Your task to perform on an android device: Open the calendar and show me this week's events? Image 0: 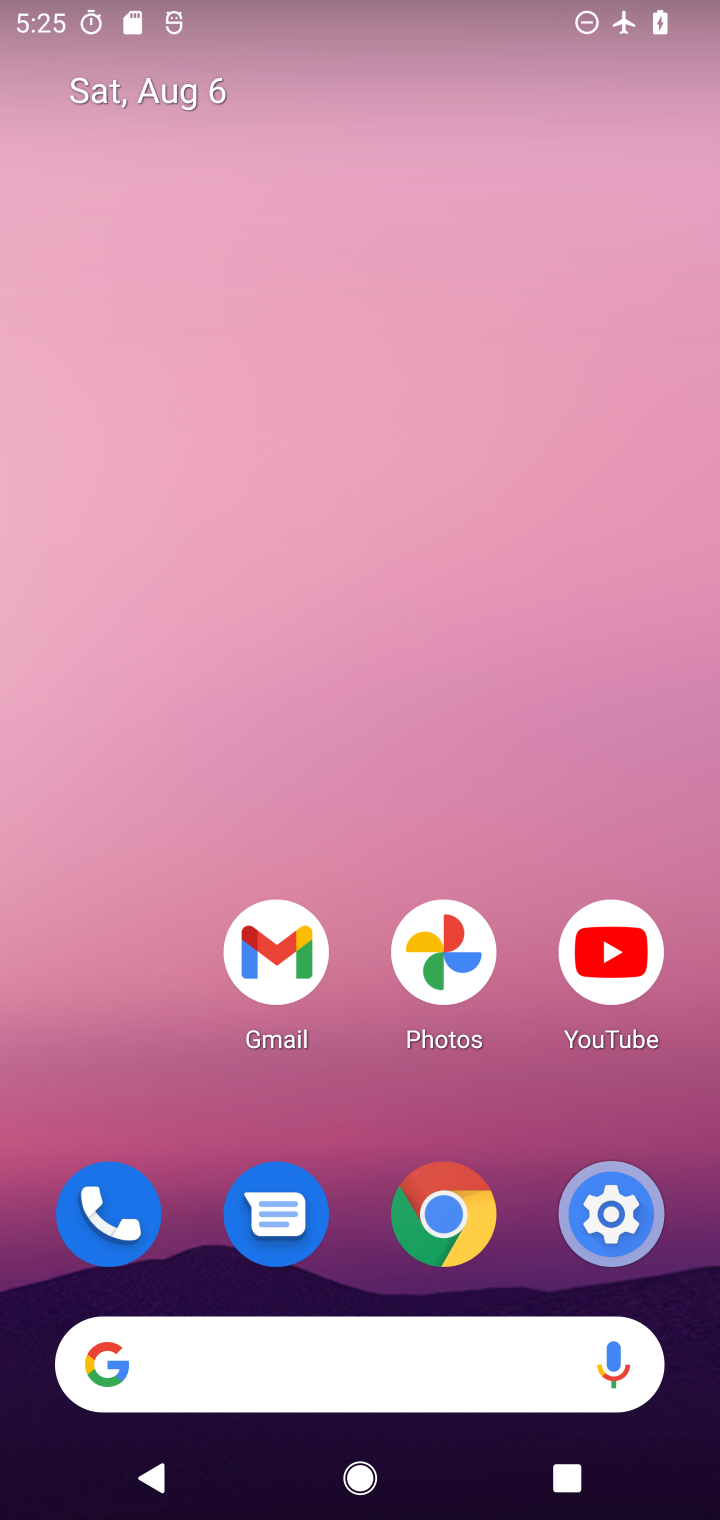
Step 0: drag from (344, 519) to (355, 155)
Your task to perform on an android device: Open the calendar and show me this week's events? Image 1: 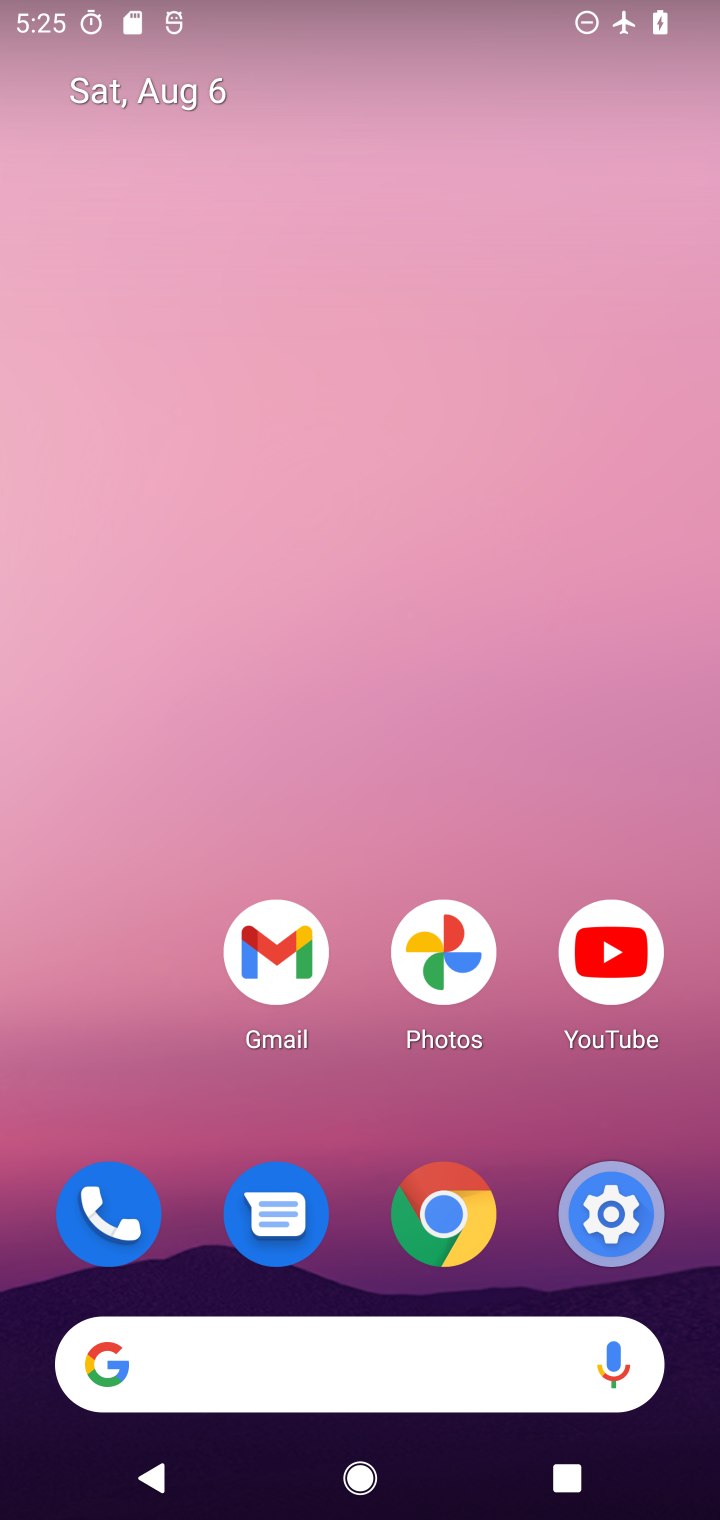
Step 1: drag from (340, 1225) to (304, 5)
Your task to perform on an android device: Open the calendar and show me this week's events? Image 2: 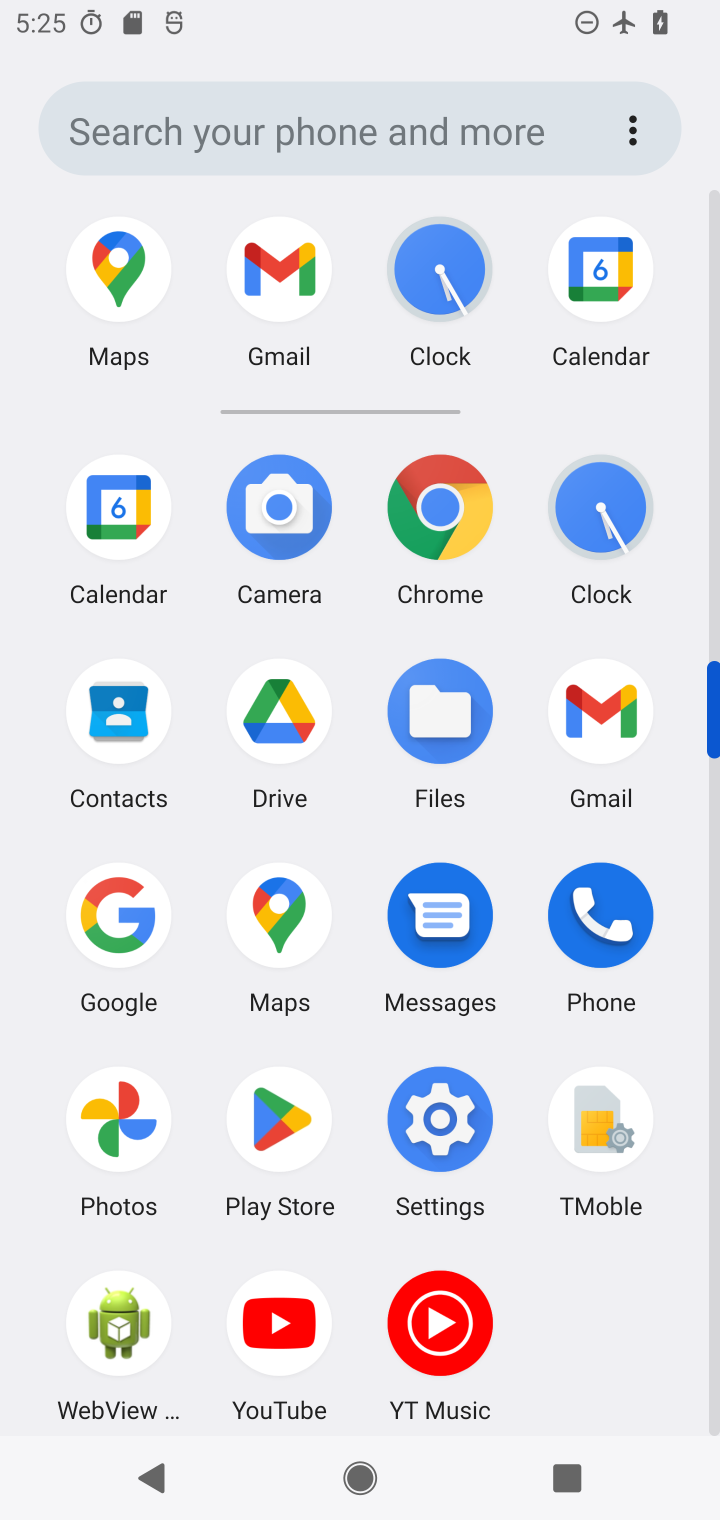
Step 2: click (100, 519)
Your task to perform on an android device: Open the calendar and show me this week's events? Image 3: 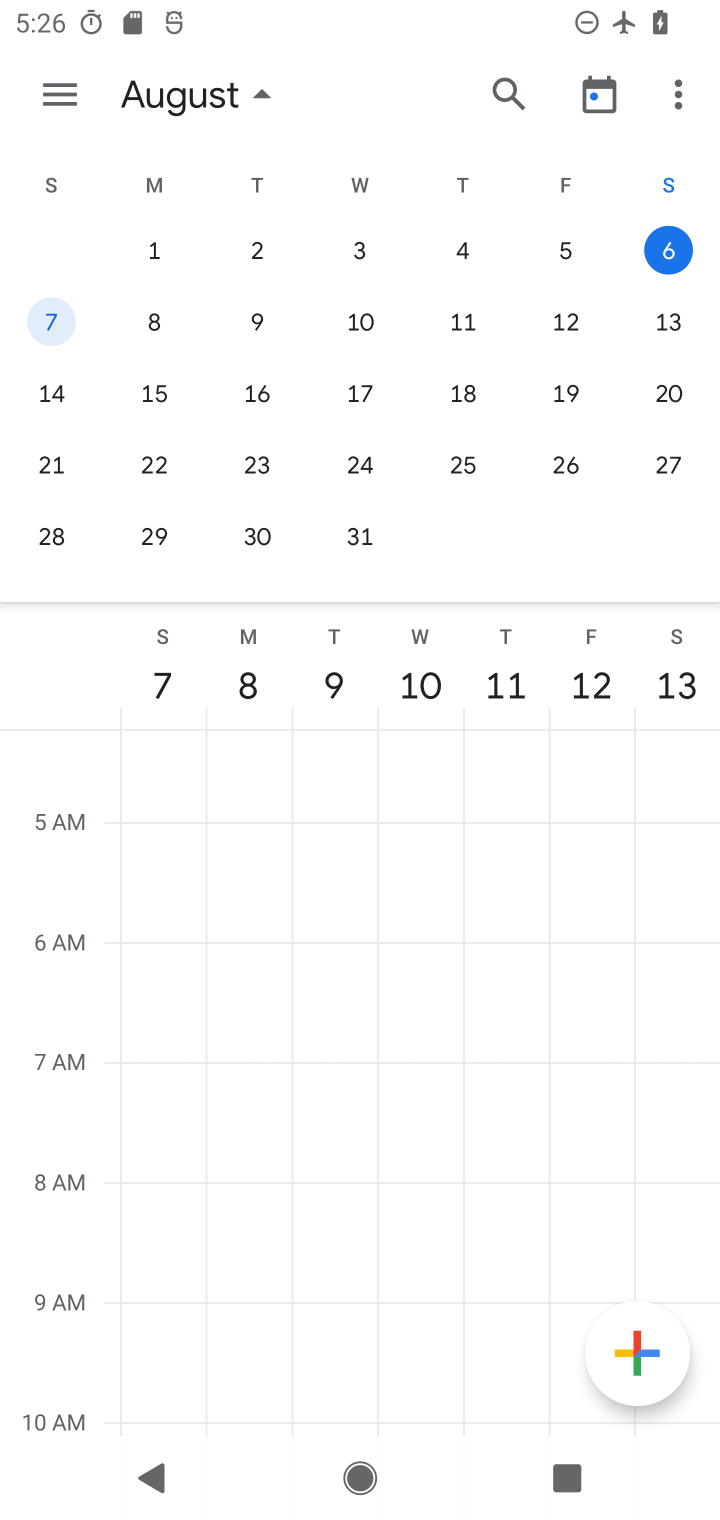
Step 3: click (153, 251)
Your task to perform on an android device: Open the calendar and show me this week's events? Image 4: 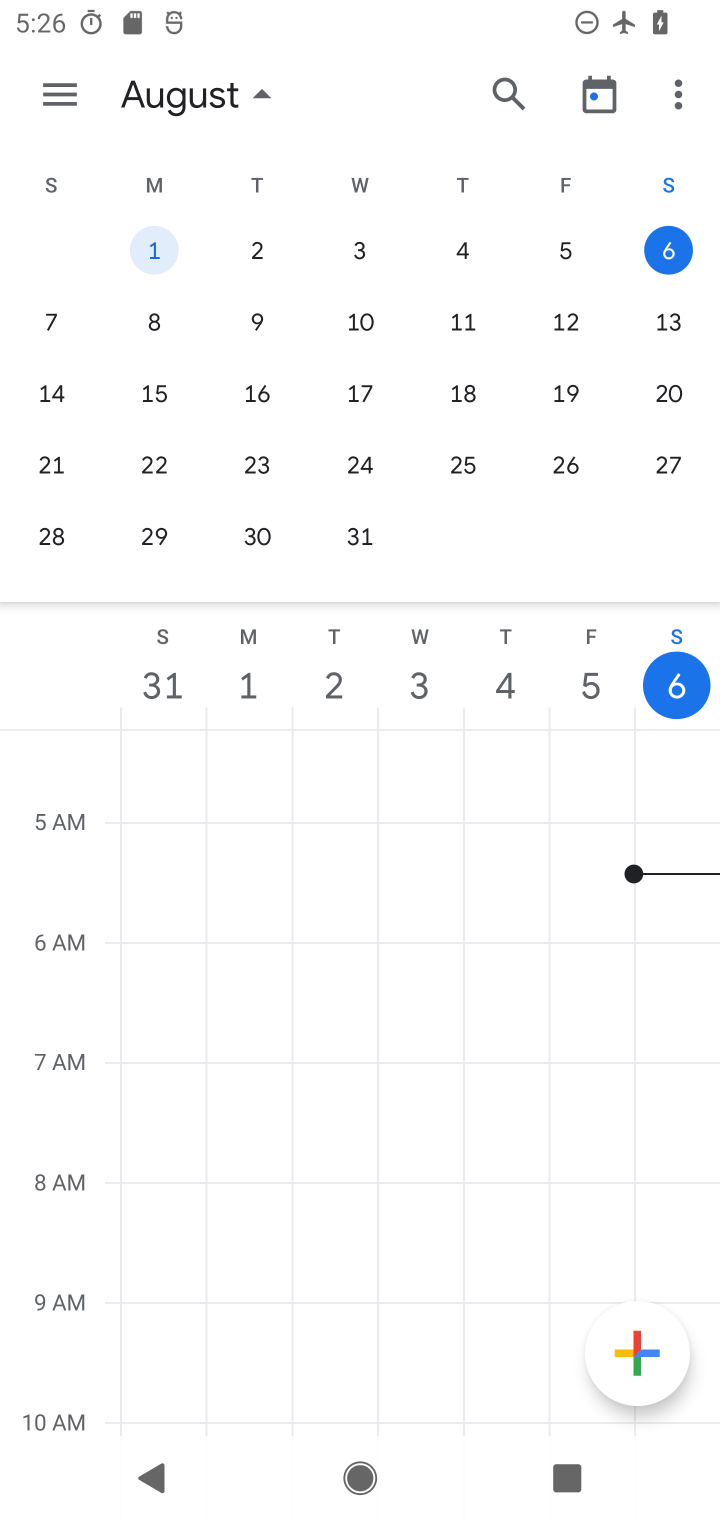
Step 4: task complete